Your task to perform on an android device: Open Google Maps and go to "Timeline" Image 0: 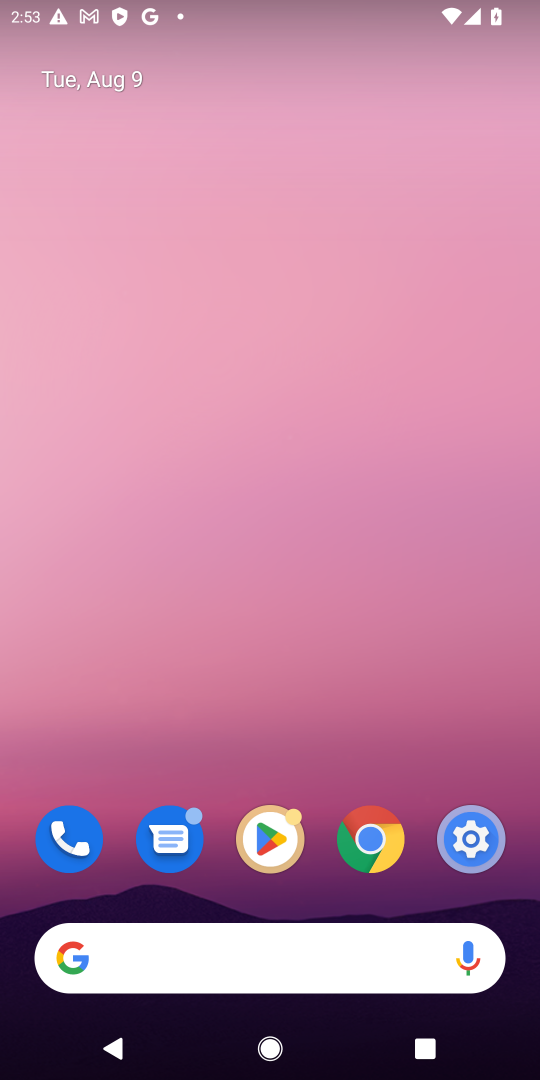
Step 0: drag from (347, 754) to (234, 55)
Your task to perform on an android device: Open Google Maps and go to "Timeline" Image 1: 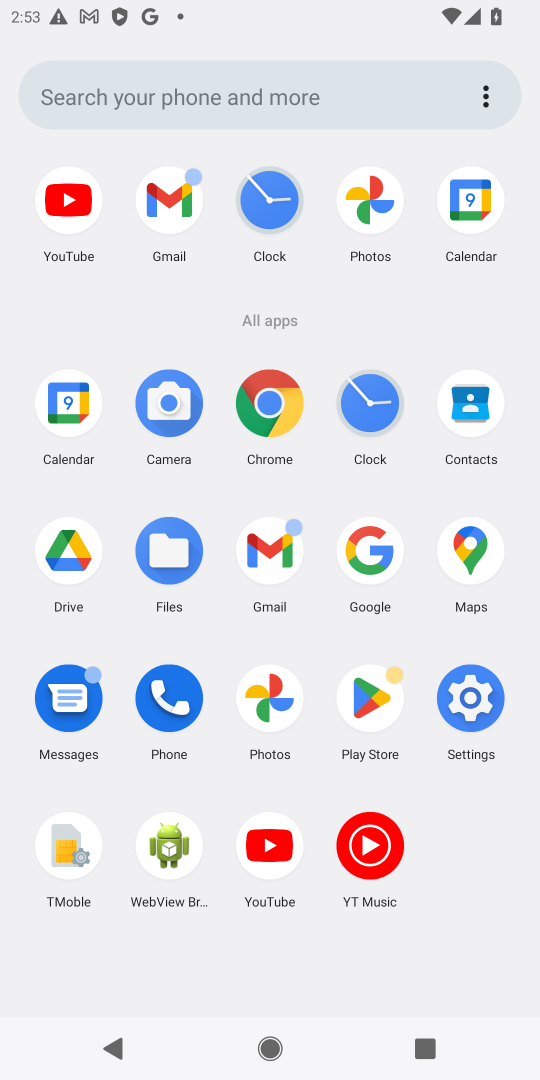
Step 1: click (457, 535)
Your task to perform on an android device: Open Google Maps and go to "Timeline" Image 2: 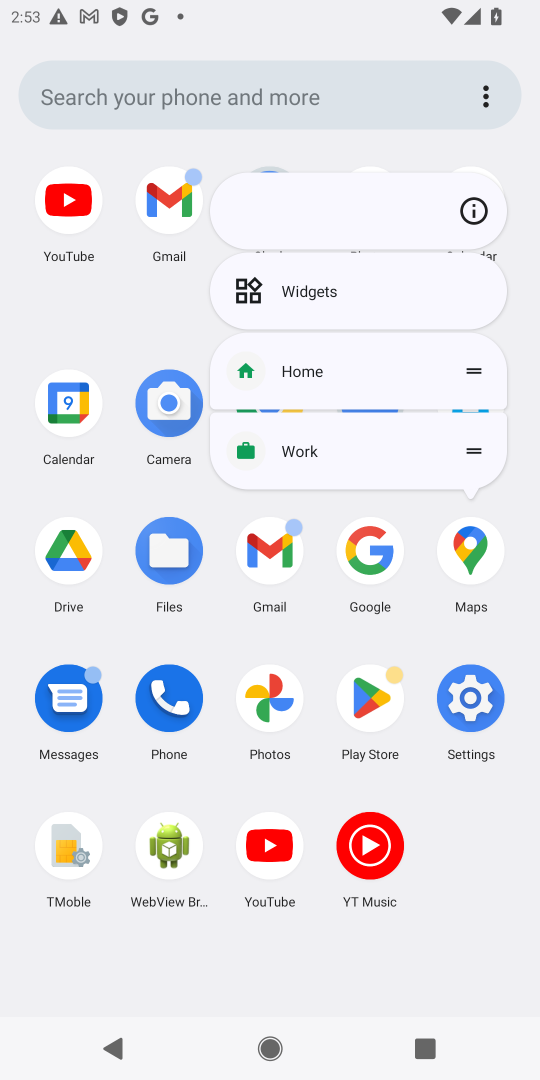
Step 2: click (467, 558)
Your task to perform on an android device: Open Google Maps and go to "Timeline" Image 3: 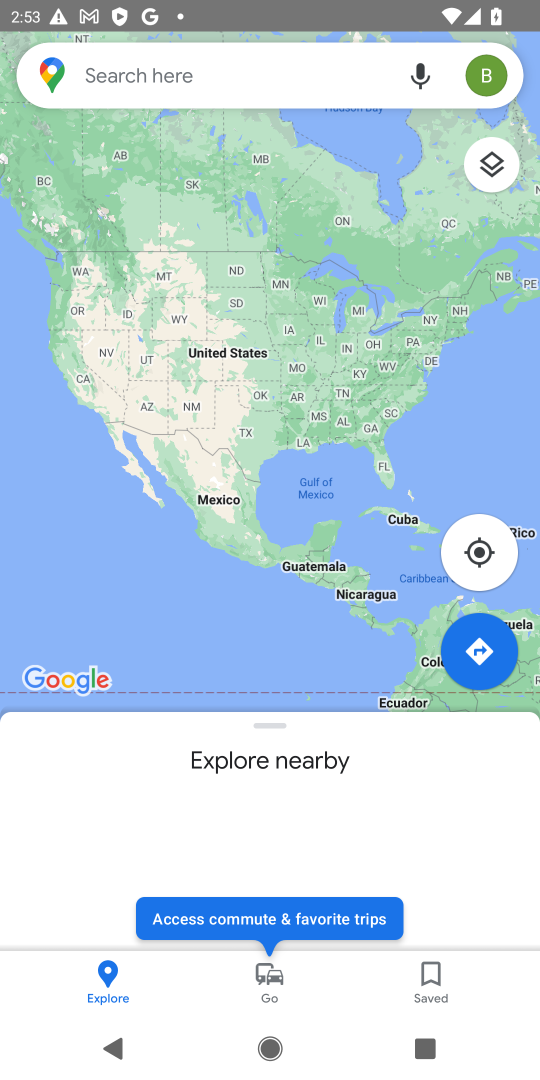
Step 3: click (492, 72)
Your task to perform on an android device: Open Google Maps and go to "Timeline" Image 4: 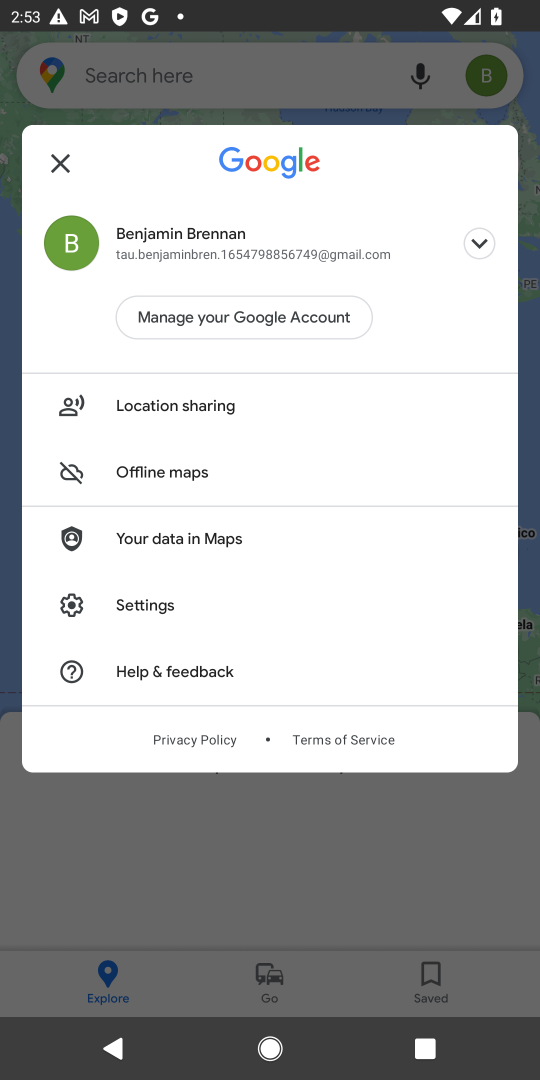
Step 4: click (232, 855)
Your task to perform on an android device: Open Google Maps and go to "Timeline" Image 5: 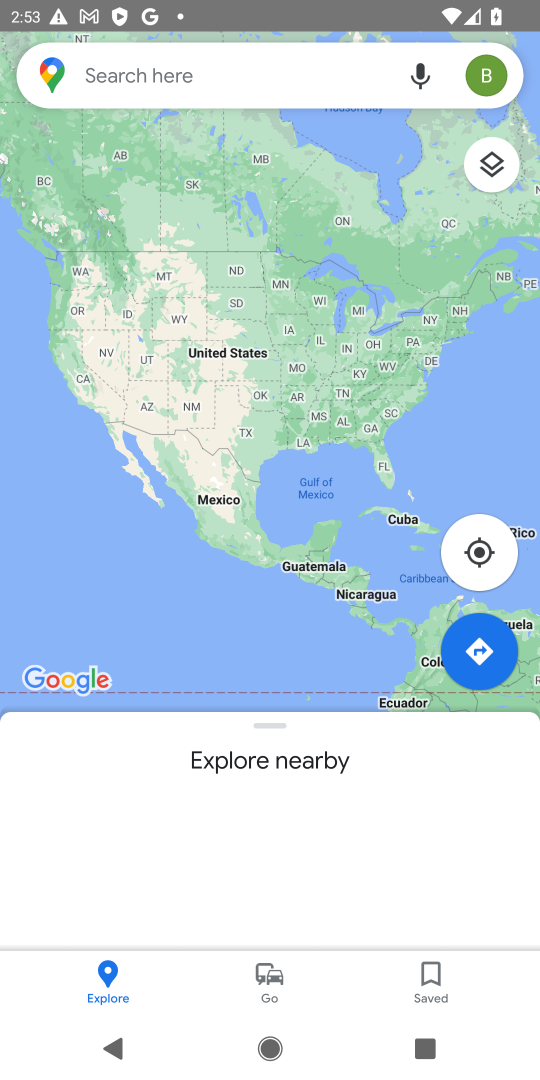
Step 5: click (49, 63)
Your task to perform on an android device: Open Google Maps and go to "Timeline" Image 6: 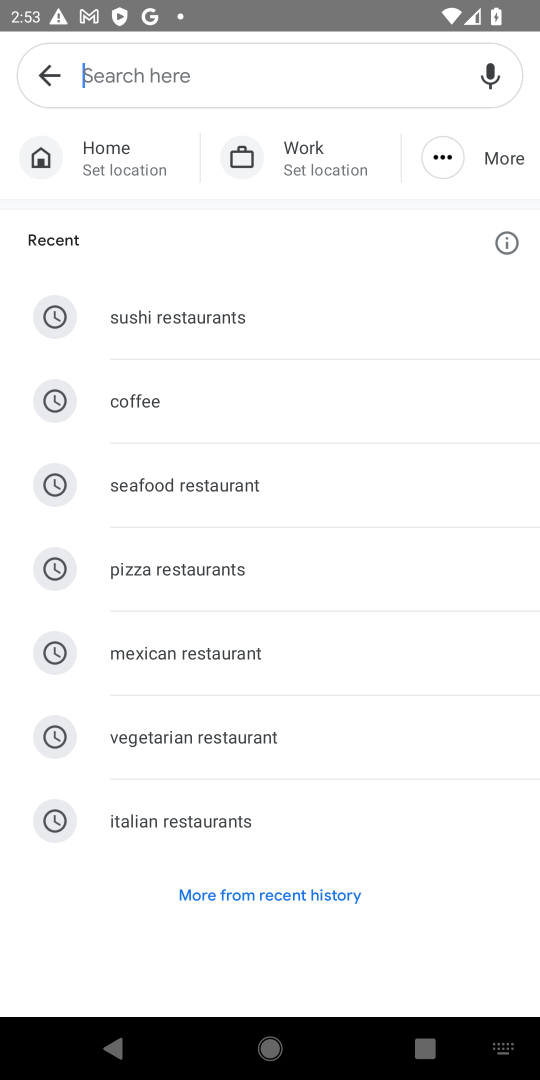
Step 6: click (35, 67)
Your task to perform on an android device: Open Google Maps and go to "Timeline" Image 7: 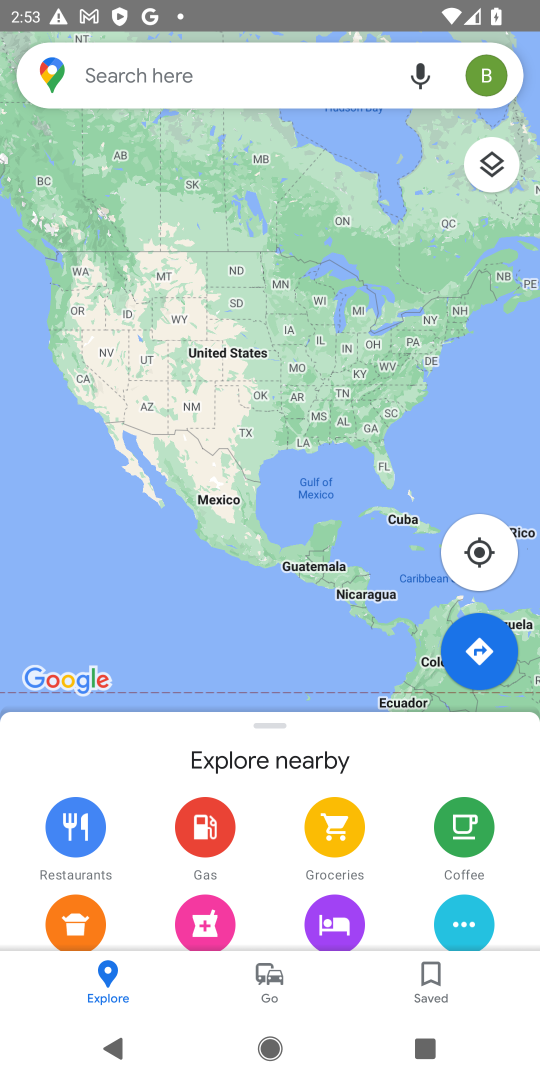
Step 7: click (493, 82)
Your task to perform on an android device: Open Google Maps and go to "Timeline" Image 8: 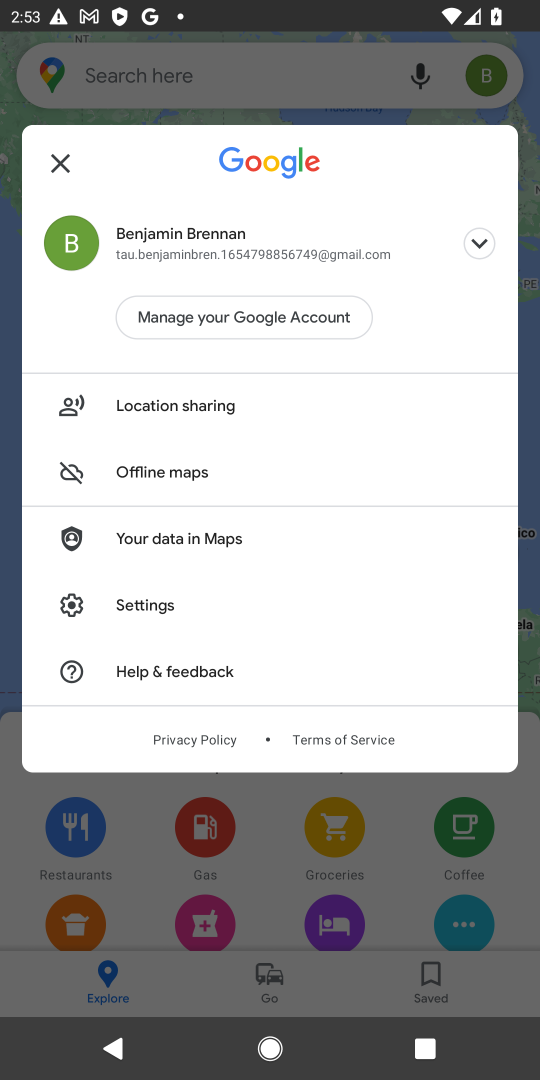
Step 8: task complete